Your task to perform on an android device: Open calendar and show me the fourth week of next month Image 0: 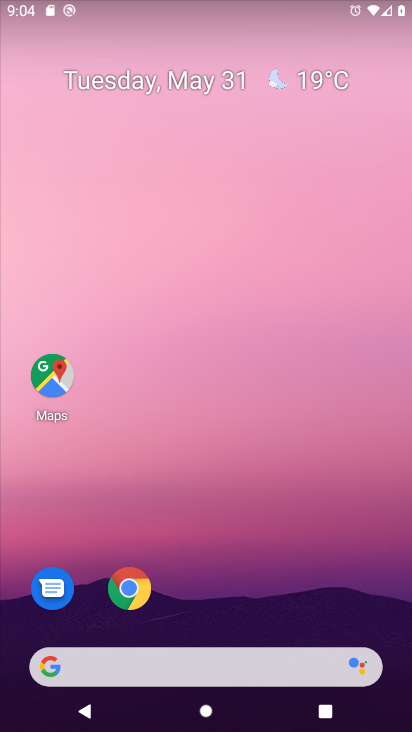
Step 0: press home button
Your task to perform on an android device: Open calendar and show me the fourth week of next month Image 1: 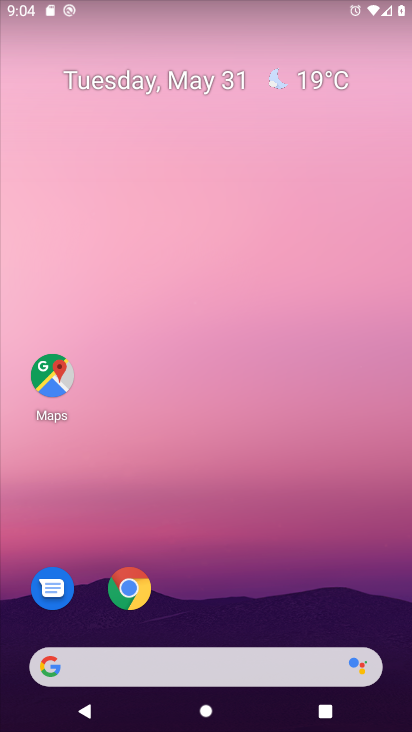
Step 1: drag from (141, 657) to (320, 109)
Your task to perform on an android device: Open calendar and show me the fourth week of next month Image 2: 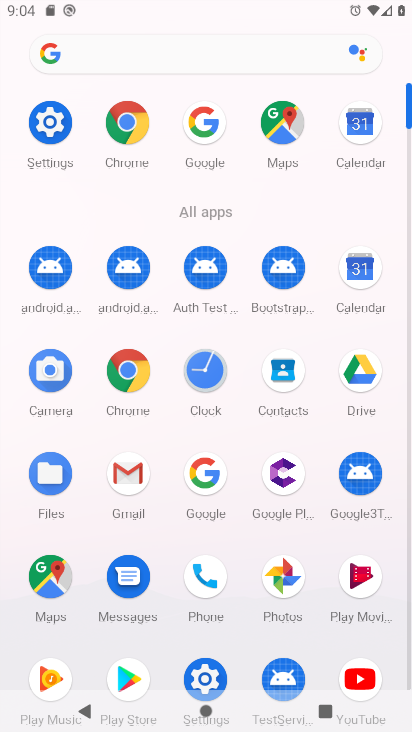
Step 2: click (366, 277)
Your task to perform on an android device: Open calendar and show me the fourth week of next month Image 3: 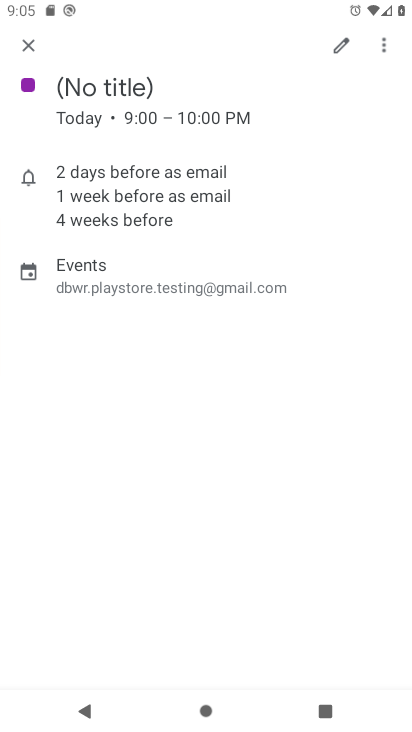
Step 3: click (28, 47)
Your task to perform on an android device: Open calendar and show me the fourth week of next month Image 4: 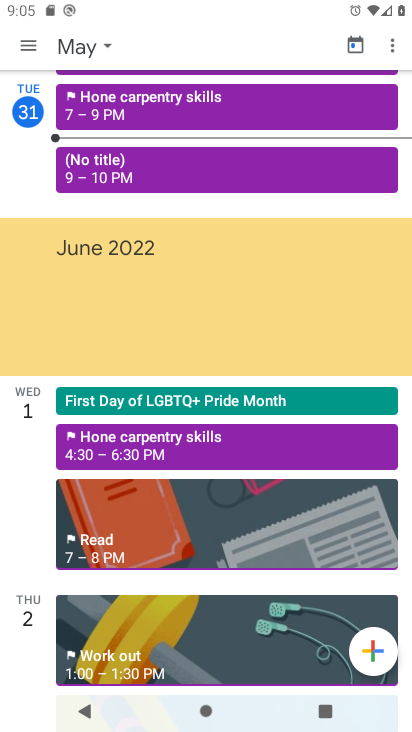
Step 4: click (79, 43)
Your task to perform on an android device: Open calendar and show me the fourth week of next month Image 5: 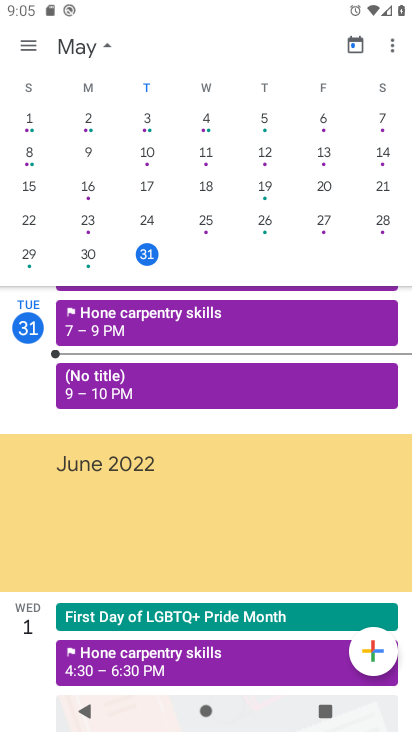
Step 5: drag from (361, 178) to (13, 173)
Your task to perform on an android device: Open calendar and show me the fourth week of next month Image 6: 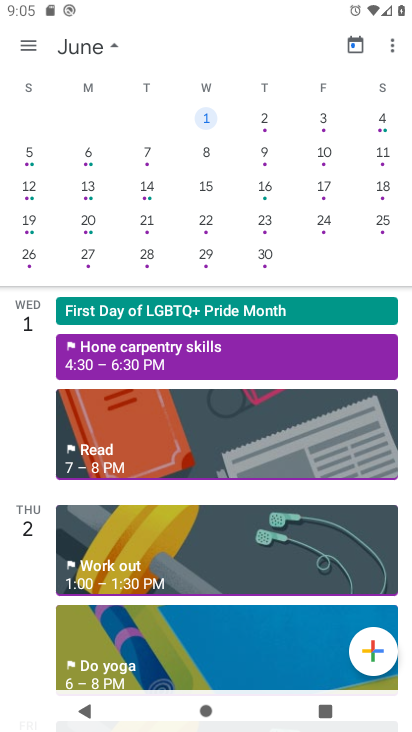
Step 6: click (35, 217)
Your task to perform on an android device: Open calendar and show me the fourth week of next month Image 7: 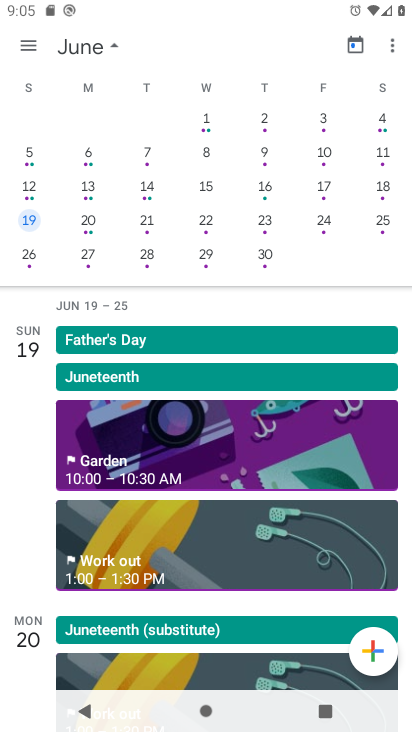
Step 7: click (33, 40)
Your task to perform on an android device: Open calendar and show me the fourth week of next month Image 8: 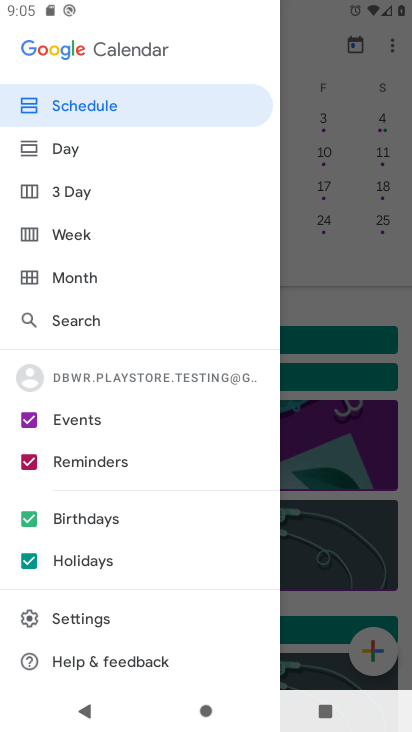
Step 8: click (85, 239)
Your task to perform on an android device: Open calendar and show me the fourth week of next month Image 9: 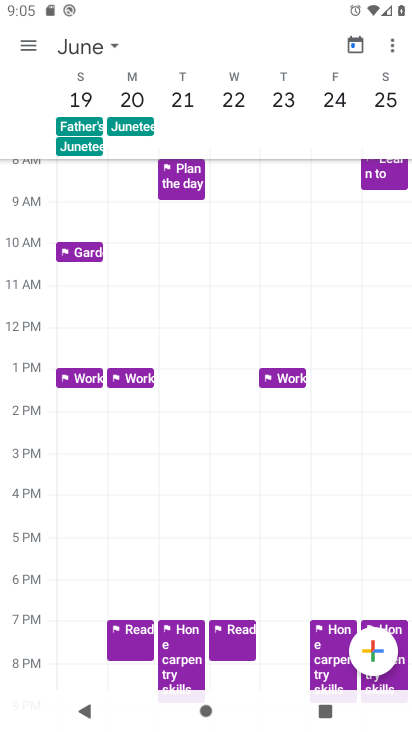
Step 9: task complete